Your task to perform on an android device: What's on my calendar tomorrow? Image 0: 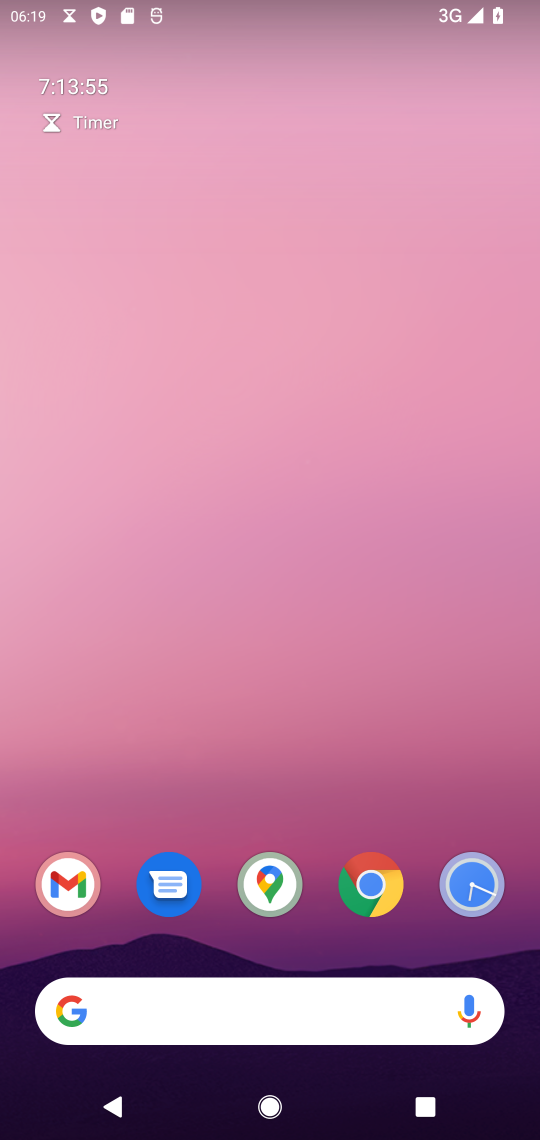
Step 0: drag from (326, 849) to (243, 18)
Your task to perform on an android device: What's on my calendar tomorrow? Image 1: 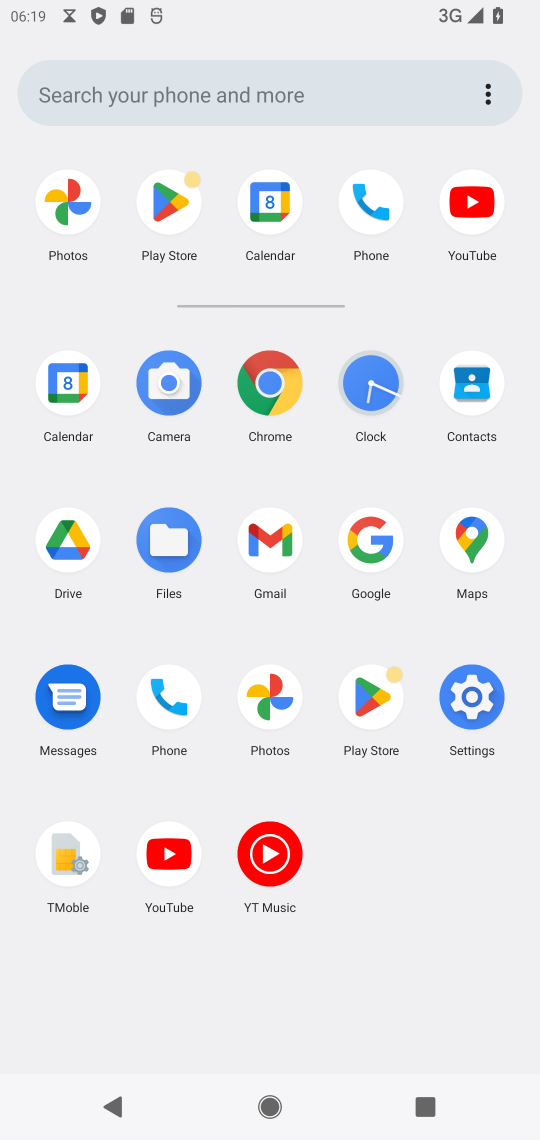
Step 1: click (273, 204)
Your task to perform on an android device: What's on my calendar tomorrow? Image 2: 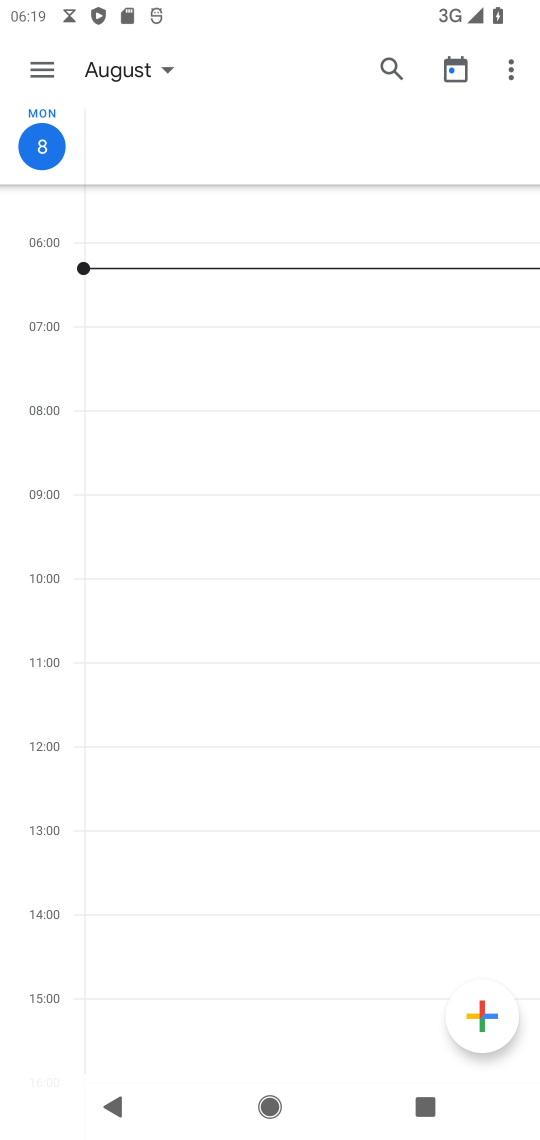
Step 2: task complete